Your task to perform on an android device: Open calendar and show me the second week of next month Image 0: 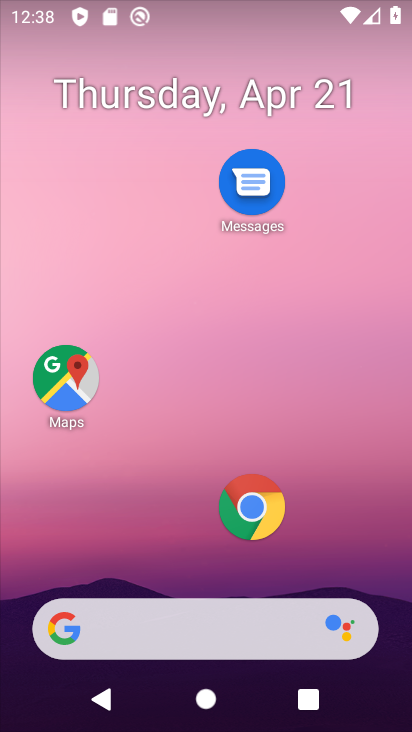
Step 0: drag from (89, 338) to (113, 197)
Your task to perform on an android device: Open calendar and show me the second week of next month Image 1: 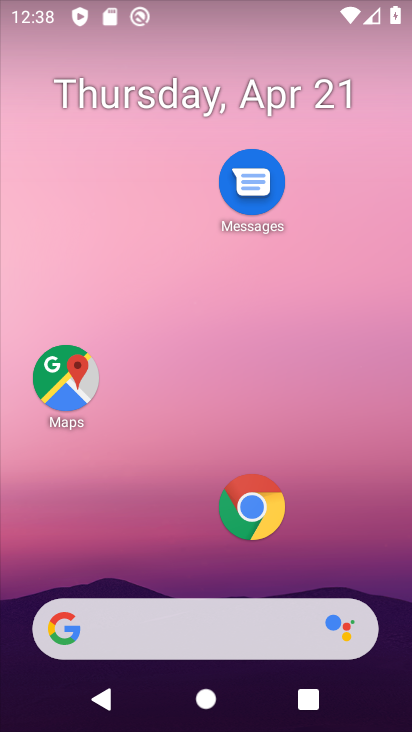
Step 1: drag from (137, 574) to (173, 58)
Your task to perform on an android device: Open calendar and show me the second week of next month Image 2: 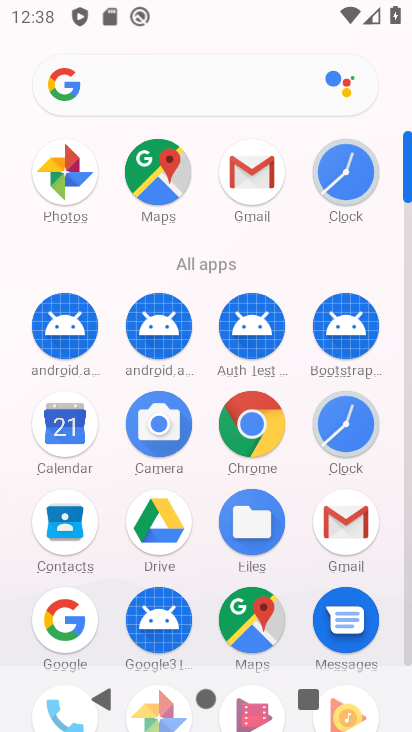
Step 2: click (74, 435)
Your task to perform on an android device: Open calendar and show me the second week of next month Image 3: 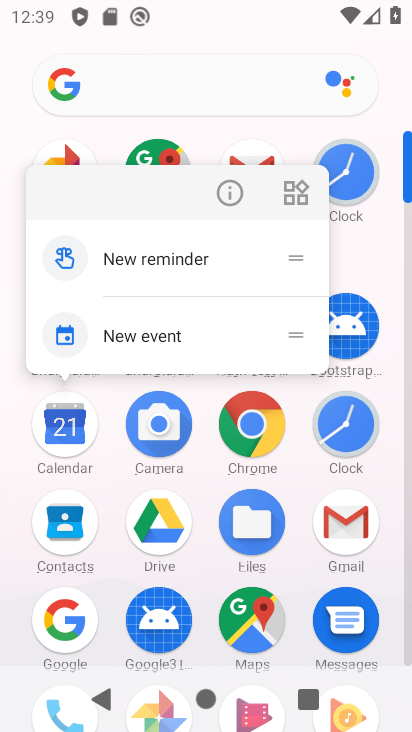
Step 3: drag from (78, 513) to (76, 453)
Your task to perform on an android device: Open calendar and show me the second week of next month Image 4: 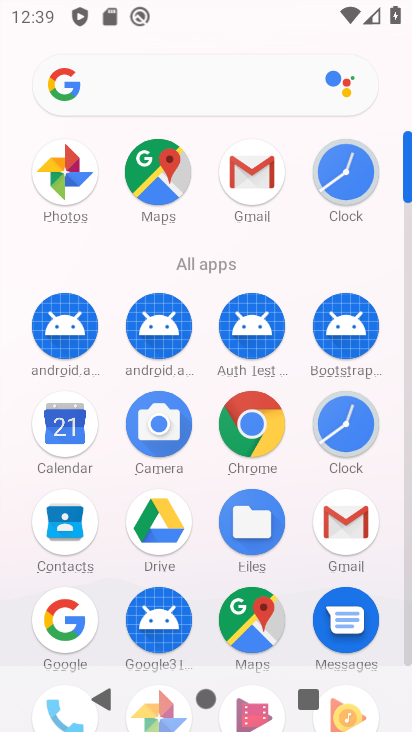
Step 4: click (76, 453)
Your task to perform on an android device: Open calendar and show me the second week of next month Image 5: 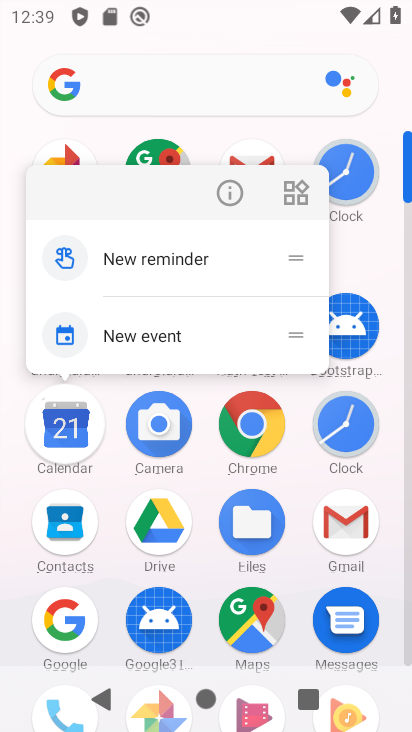
Step 5: click (63, 429)
Your task to perform on an android device: Open calendar and show me the second week of next month Image 6: 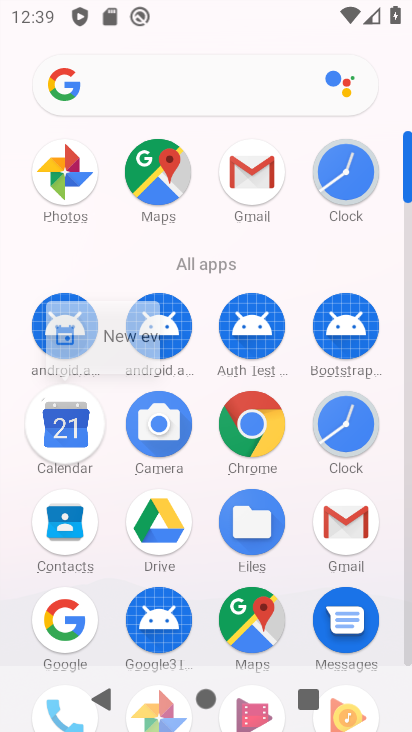
Step 6: click (71, 429)
Your task to perform on an android device: Open calendar and show me the second week of next month Image 7: 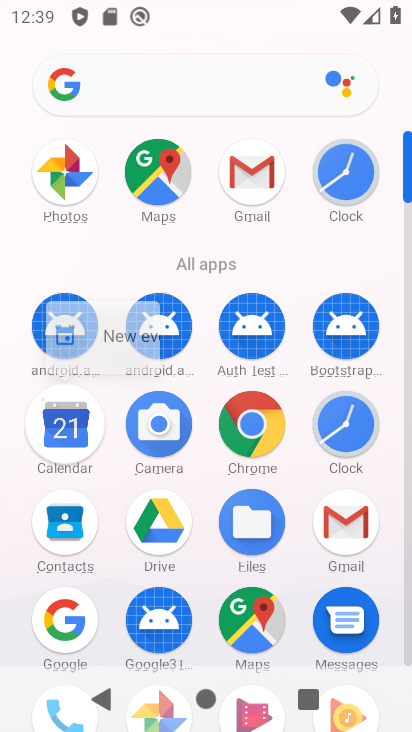
Step 7: click (71, 429)
Your task to perform on an android device: Open calendar and show me the second week of next month Image 8: 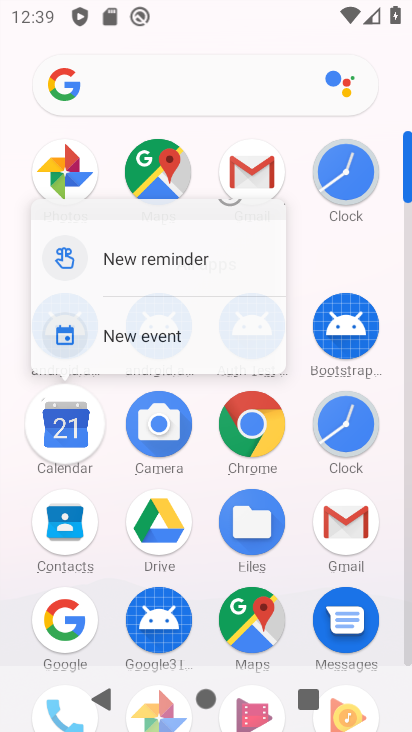
Step 8: click (71, 427)
Your task to perform on an android device: Open calendar and show me the second week of next month Image 9: 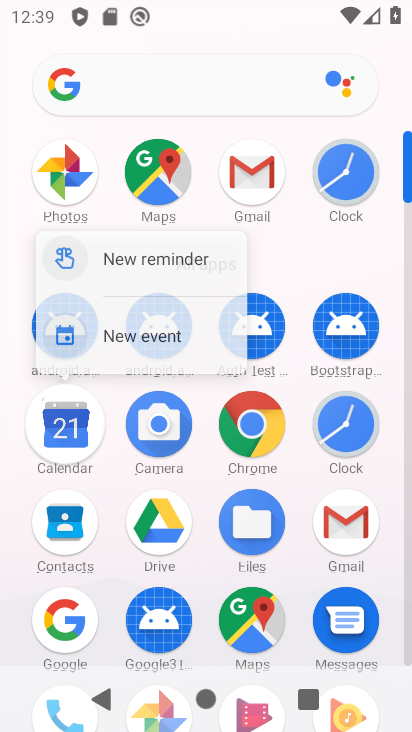
Step 9: click (71, 427)
Your task to perform on an android device: Open calendar and show me the second week of next month Image 10: 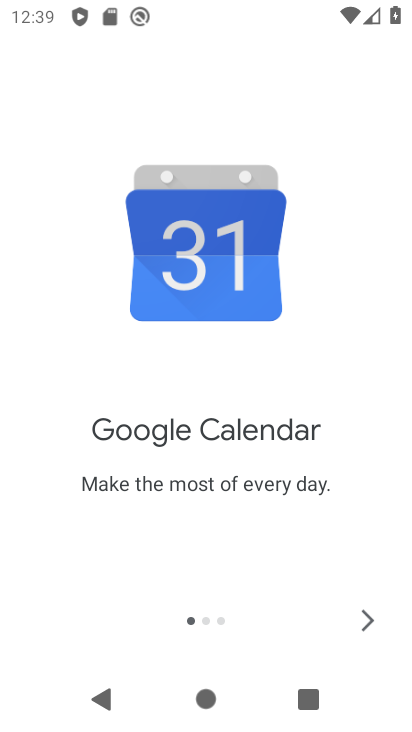
Step 10: click (348, 621)
Your task to perform on an android device: Open calendar and show me the second week of next month Image 11: 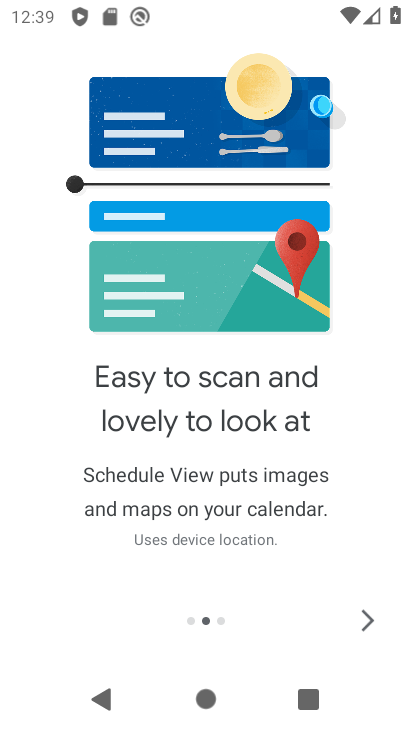
Step 11: click (371, 637)
Your task to perform on an android device: Open calendar and show me the second week of next month Image 12: 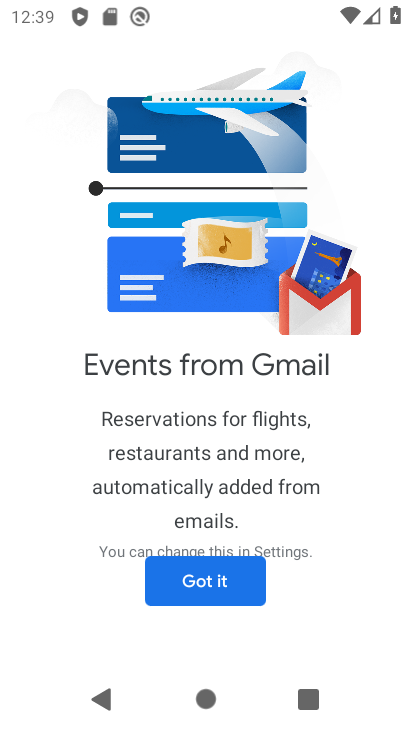
Step 12: click (257, 597)
Your task to perform on an android device: Open calendar and show me the second week of next month Image 13: 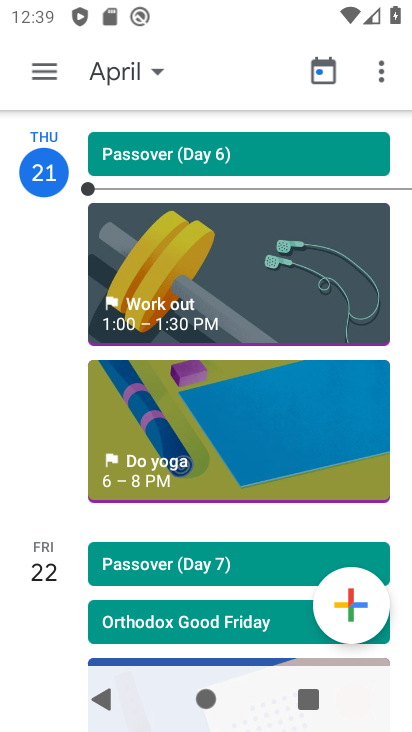
Step 13: click (51, 76)
Your task to perform on an android device: Open calendar and show me the second week of next month Image 14: 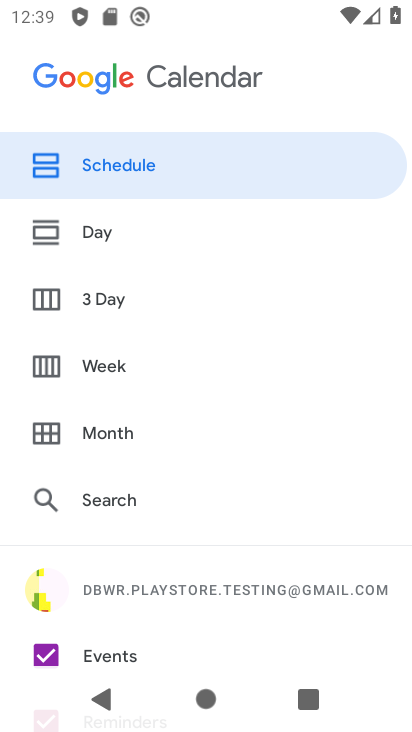
Step 14: click (141, 371)
Your task to perform on an android device: Open calendar and show me the second week of next month Image 15: 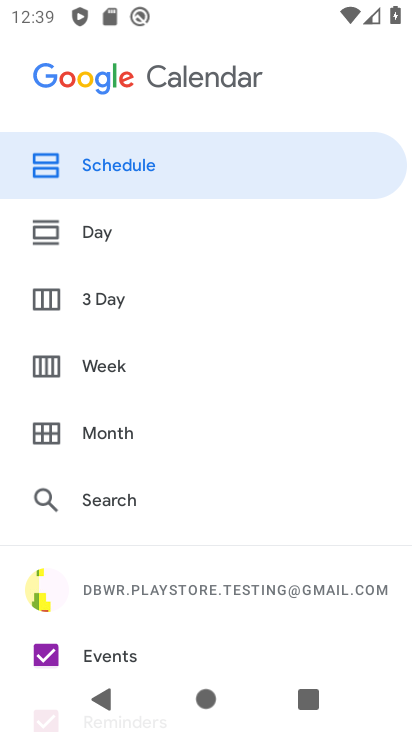
Step 15: click (110, 368)
Your task to perform on an android device: Open calendar and show me the second week of next month Image 16: 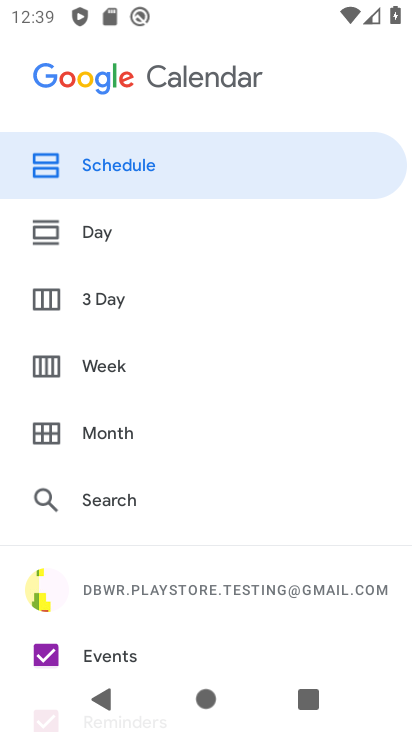
Step 16: click (109, 366)
Your task to perform on an android device: Open calendar and show me the second week of next month Image 17: 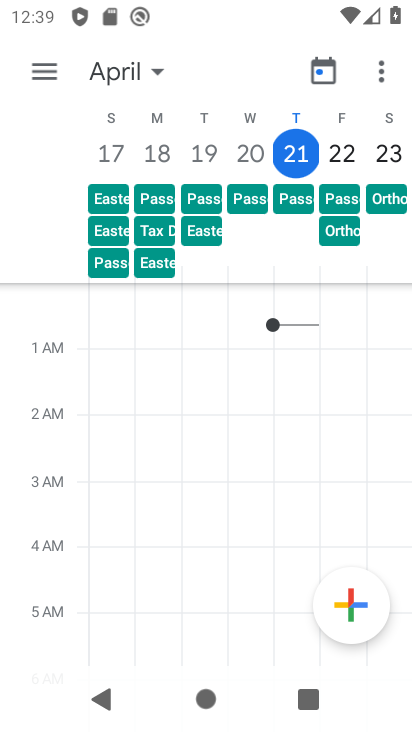
Step 17: click (129, 80)
Your task to perform on an android device: Open calendar and show me the second week of next month Image 18: 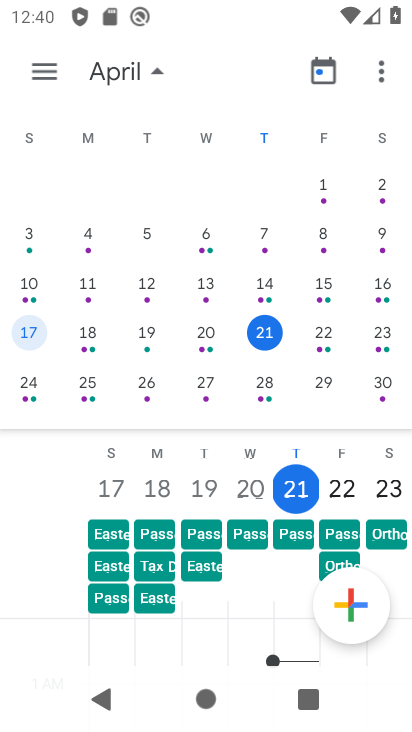
Step 18: drag from (369, 315) to (38, 297)
Your task to perform on an android device: Open calendar and show me the second week of next month Image 19: 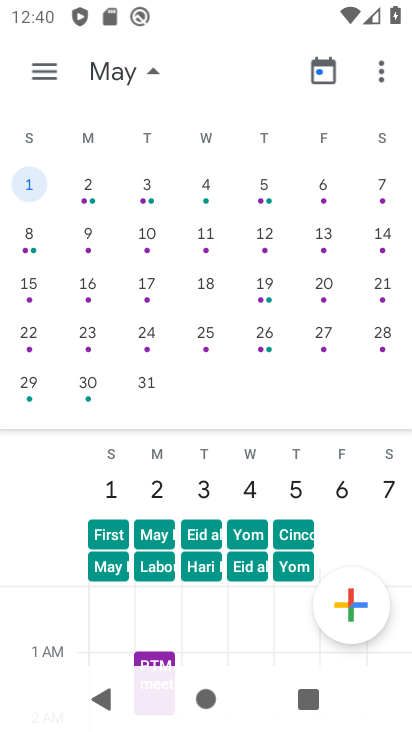
Step 19: click (32, 239)
Your task to perform on an android device: Open calendar and show me the second week of next month Image 20: 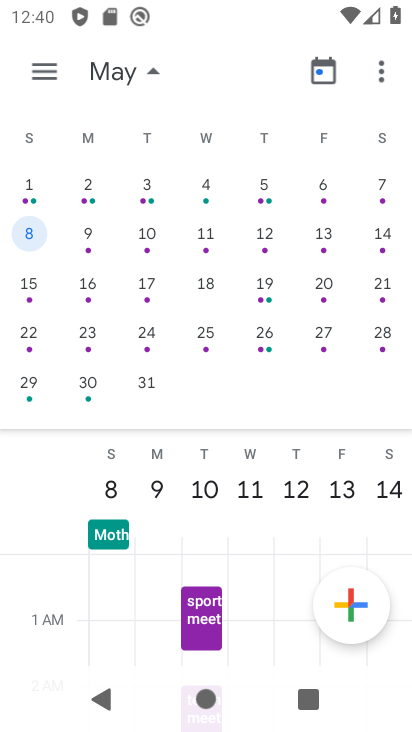
Step 20: click (155, 71)
Your task to perform on an android device: Open calendar and show me the second week of next month Image 21: 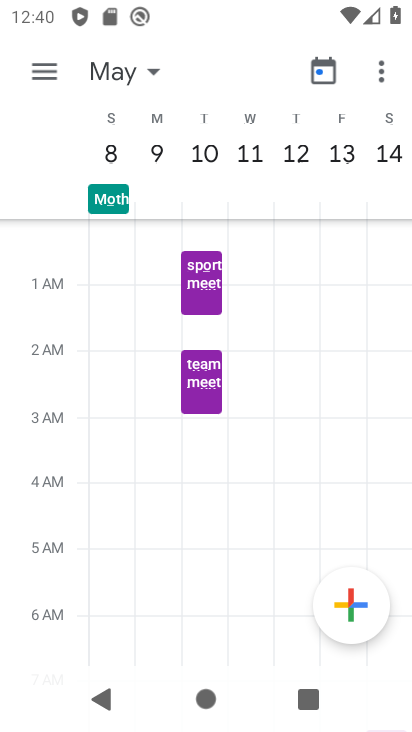
Step 21: task complete